Your task to perform on an android device: allow cookies in the chrome app Image 0: 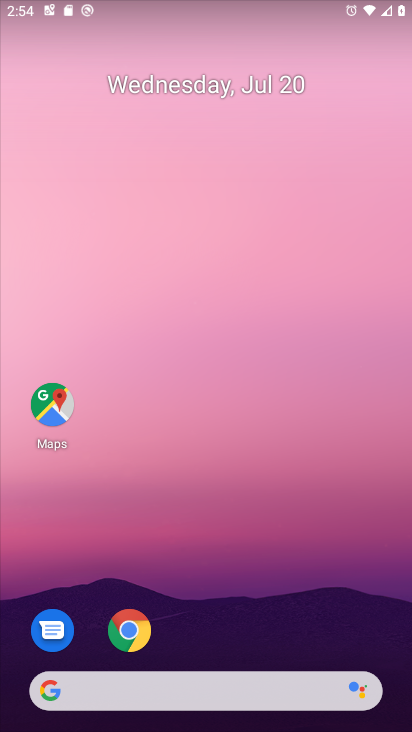
Step 0: drag from (227, 657) to (300, 180)
Your task to perform on an android device: allow cookies in the chrome app Image 1: 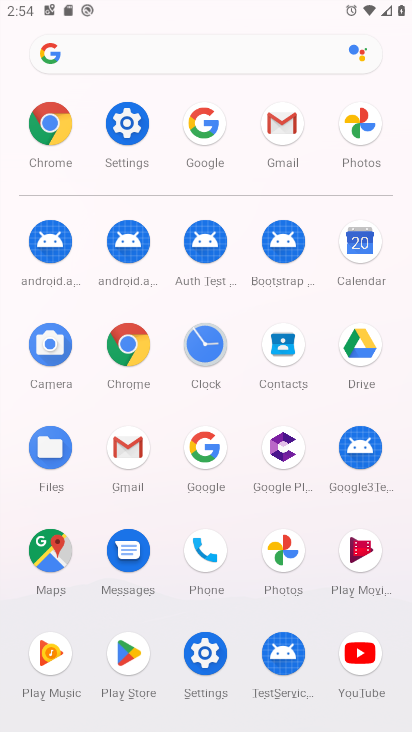
Step 1: click (59, 139)
Your task to perform on an android device: allow cookies in the chrome app Image 2: 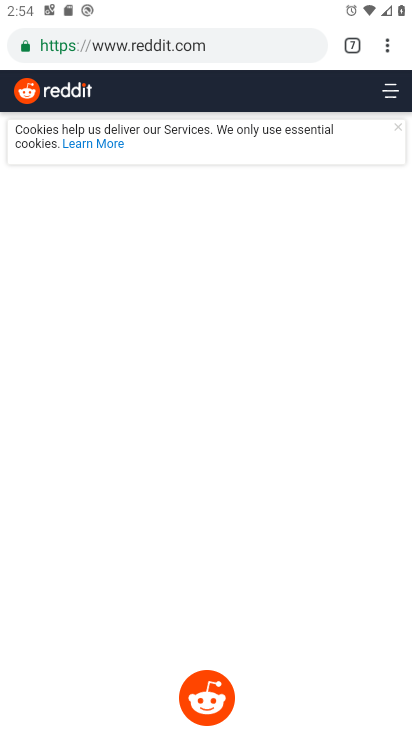
Step 2: click (389, 47)
Your task to perform on an android device: allow cookies in the chrome app Image 3: 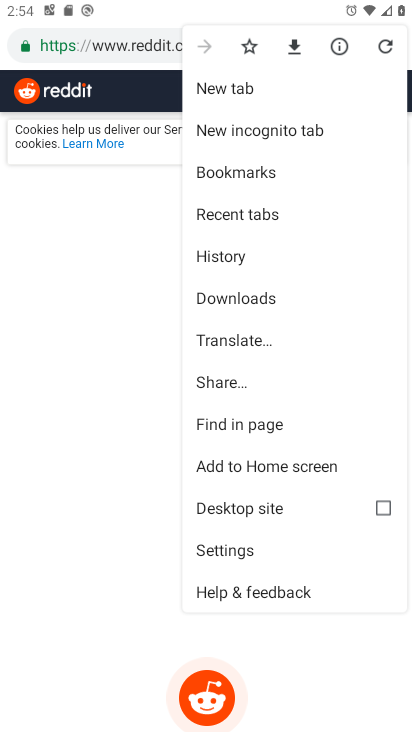
Step 3: click (238, 547)
Your task to perform on an android device: allow cookies in the chrome app Image 4: 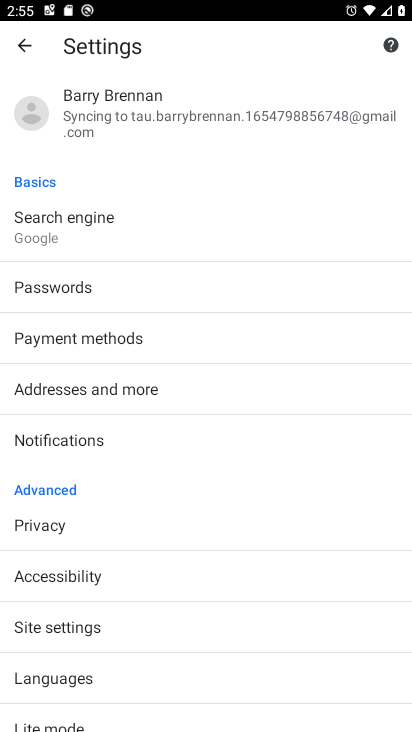
Step 4: click (72, 632)
Your task to perform on an android device: allow cookies in the chrome app Image 5: 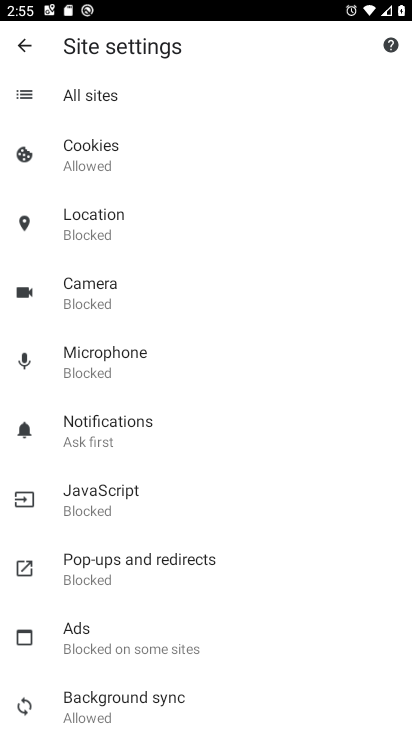
Step 5: click (122, 154)
Your task to perform on an android device: allow cookies in the chrome app Image 6: 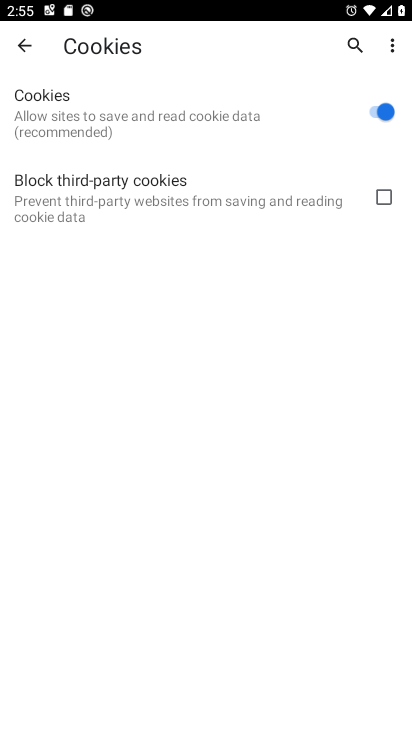
Step 6: task complete